Your task to perform on an android device: toggle priority inbox in the gmail app Image 0: 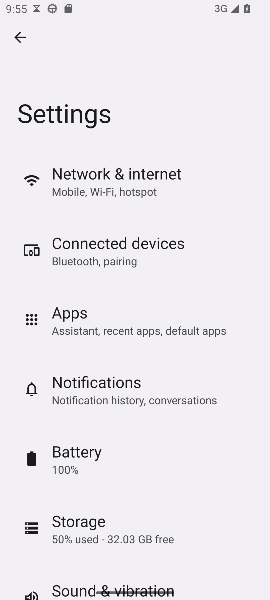
Step 0: drag from (185, 506) to (225, 264)
Your task to perform on an android device: toggle priority inbox in the gmail app Image 1: 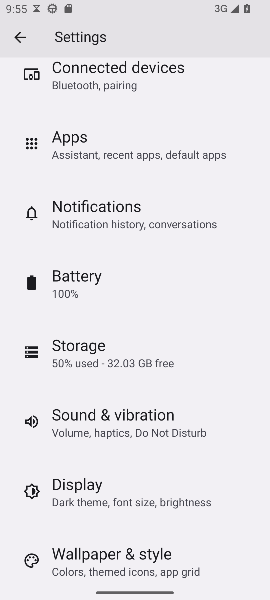
Step 1: press home button
Your task to perform on an android device: toggle priority inbox in the gmail app Image 2: 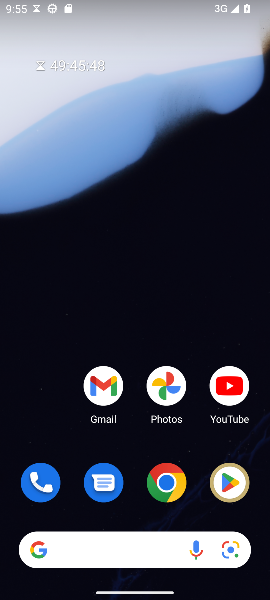
Step 2: drag from (104, 421) to (138, 3)
Your task to perform on an android device: toggle priority inbox in the gmail app Image 3: 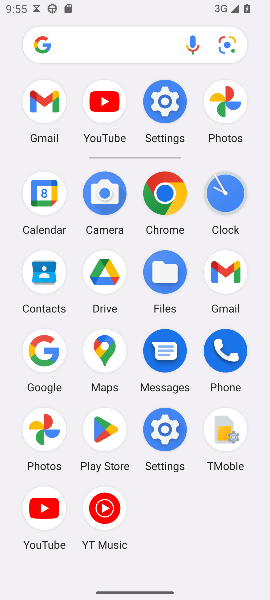
Step 3: click (35, 96)
Your task to perform on an android device: toggle priority inbox in the gmail app Image 4: 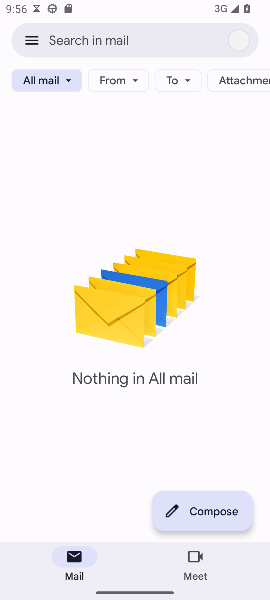
Step 4: click (20, 35)
Your task to perform on an android device: toggle priority inbox in the gmail app Image 5: 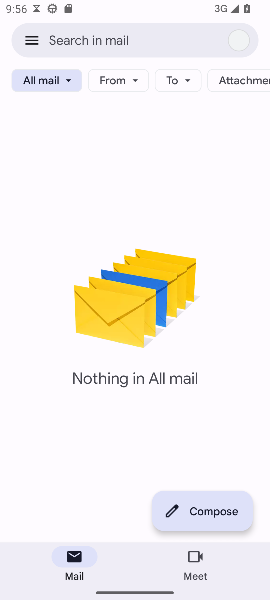
Step 5: click (48, 33)
Your task to perform on an android device: toggle priority inbox in the gmail app Image 6: 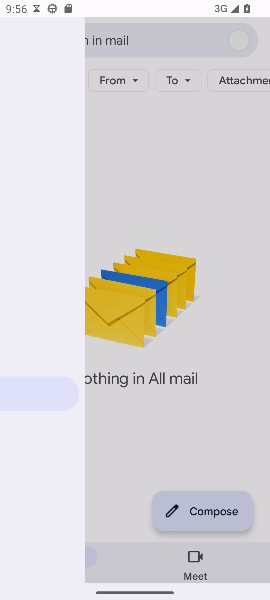
Step 6: click (30, 43)
Your task to perform on an android device: toggle priority inbox in the gmail app Image 7: 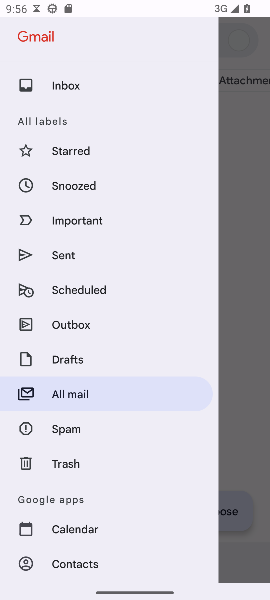
Step 7: drag from (69, 547) to (93, 182)
Your task to perform on an android device: toggle priority inbox in the gmail app Image 8: 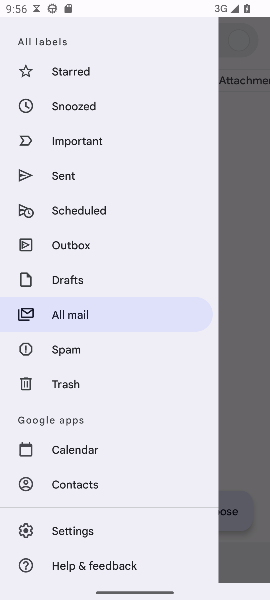
Step 8: click (74, 527)
Your task to perform on an android device: toggle priority inbox in the gmail app Image 9: 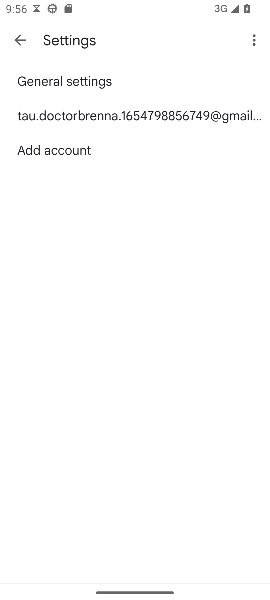
Step 9: click (64, 114)
Your task to perform on an android device: toggle priority inbox in the gmail app Image 10: 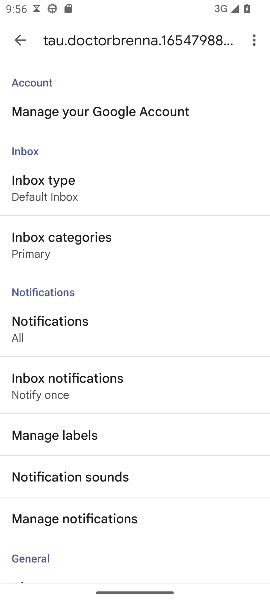
Step 10: click (41, 259)
Your task to perform on an android device: toggle priority inbox in the gmail app Image 11: 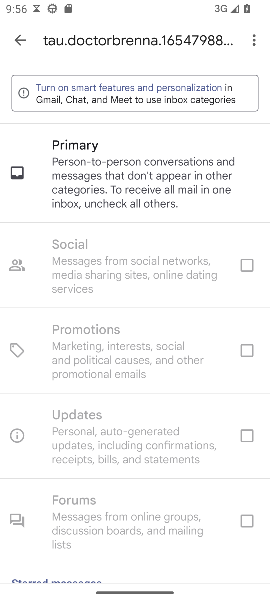
Step 11: click (23, 41)
Your task to perform on an android device: toggle priority inbox in the gmail app Image 12: 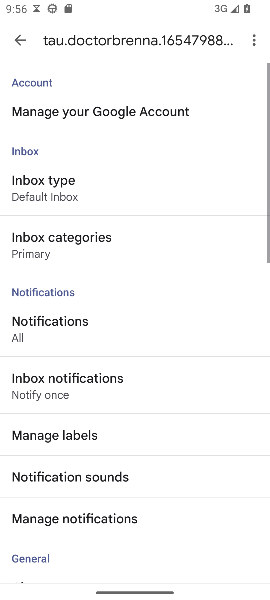
Step 12: drag from (93, 150) to (93, 418)
Your task to perform on an android device: toggle priority inbox in the gmail app Image 13: 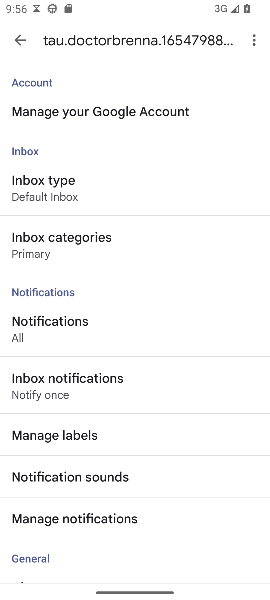
Step 13: click (61, 199)
Your task to perform on an android device: toggle priority inbox in the gmail app Image 14: 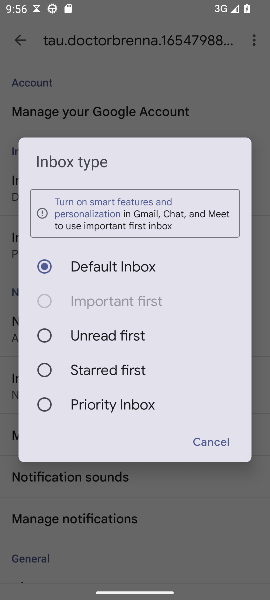
Step 14: click (73, 402)
Your task to perform on an android device: toggle priority inbox in the gmail app Image 15: 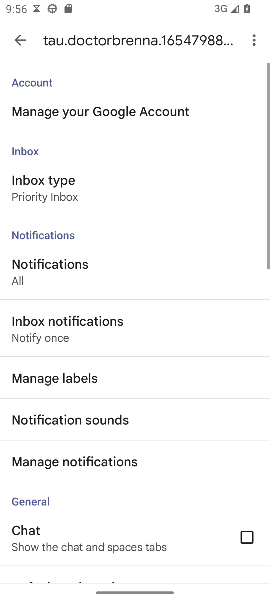
Step 15: task complete